Your task to perform on an android device: Open Wikipedia Image 0: 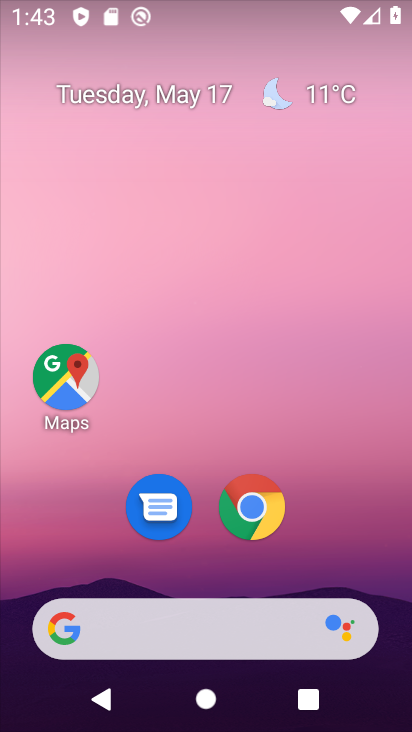
Step 0: click (253, 503)
Your task to perform on an android device: Open Wikipedia Image 1: 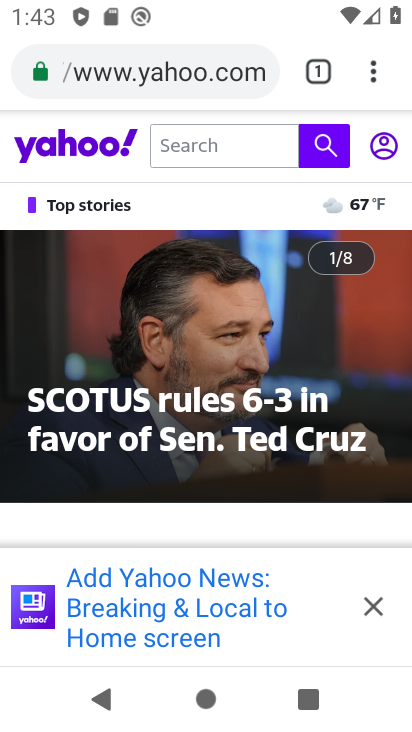
Step 1: click (327, 80)
Your task to perform on an android device: Open Wikipedia Image 2: 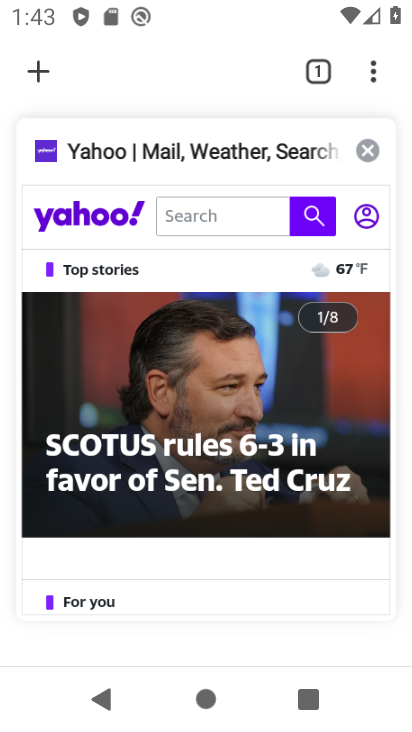
Step 2: click (47, 80)
Your task to perform on an android device: Open Wikipedia Image 3: 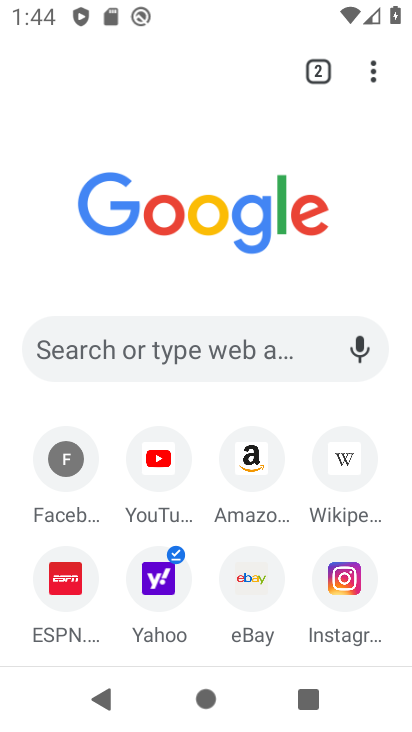
Step 3: click (349, 452)
Your task to perform on an android device: Open Wikipedia Image 4: 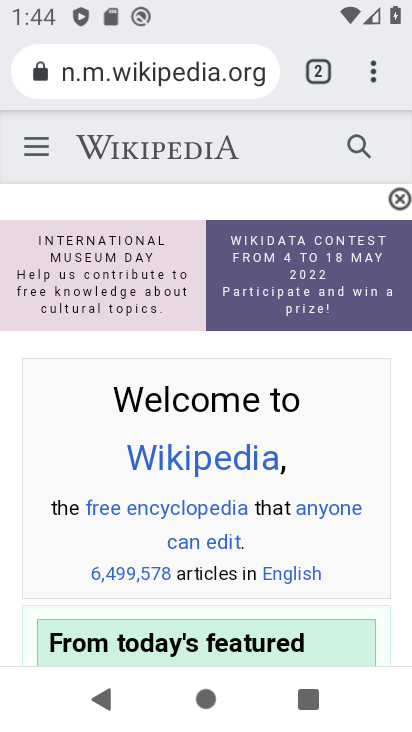
Step 4: task complete